Your task to perform on an android device: Search for vegetarian restaurants on Maps Image 0: 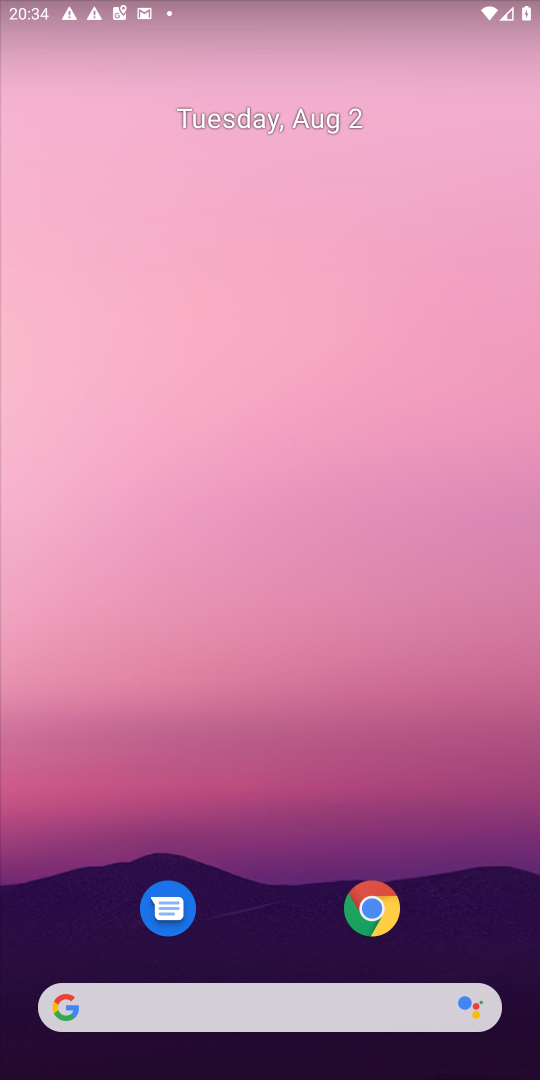
Step 0: drag from (334, 960) to (463, 15)
Your task to perform on an android device: Search for vegetarian restaurants on Maps Image 1: 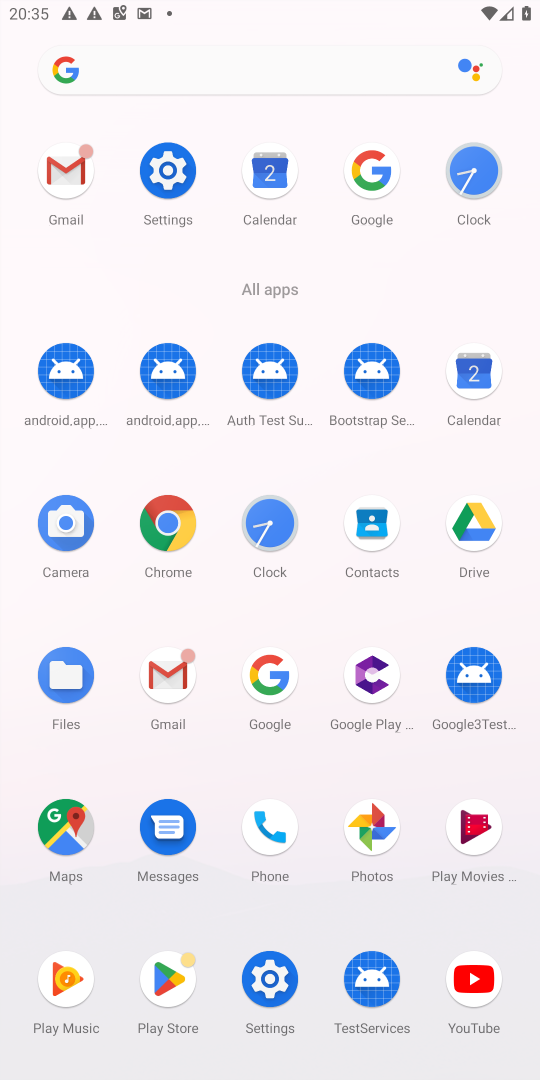
Step 1: click (65, 830)
Your task to perform on an android device: Search for vegetarian restaurants on Maps Image 2: 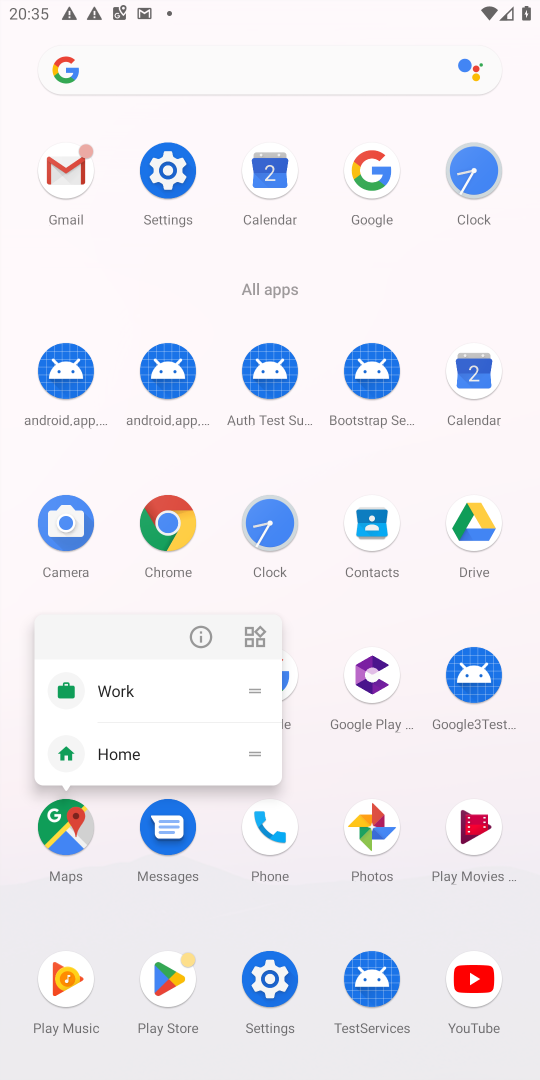
Step 2: click (65, 830)
Your task to perform on an android device: Search for vegetarian restaurants on Maps Image 3: 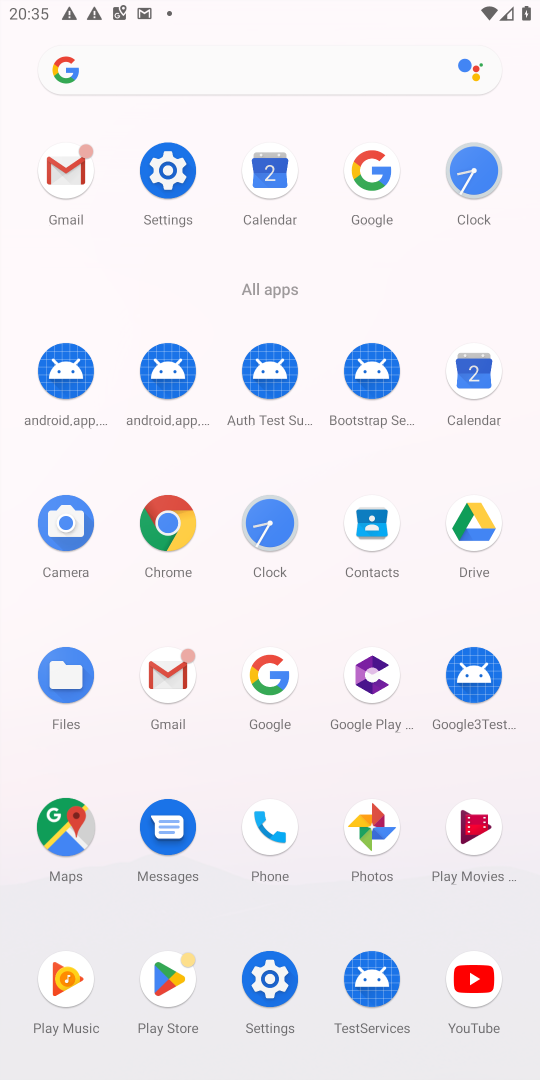
Step 3: click (65, 830)
Your task to perform on an android device: Search for vegetarian restaurants on Maps Image 4: 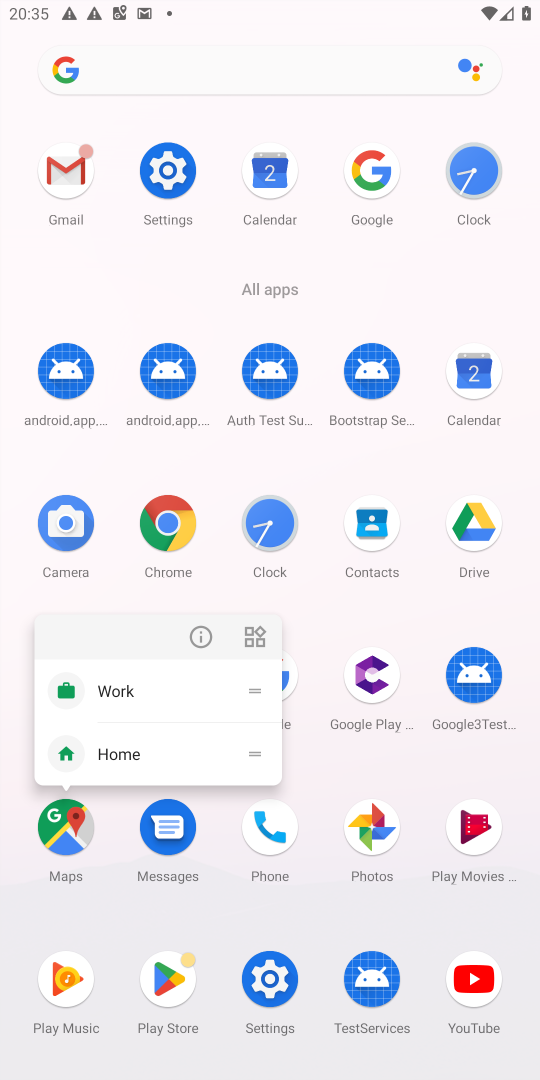
Step 4: click (65, 830)
Your task to perform on an android device: Search for vegetarian restaurants on Maps Image 5: 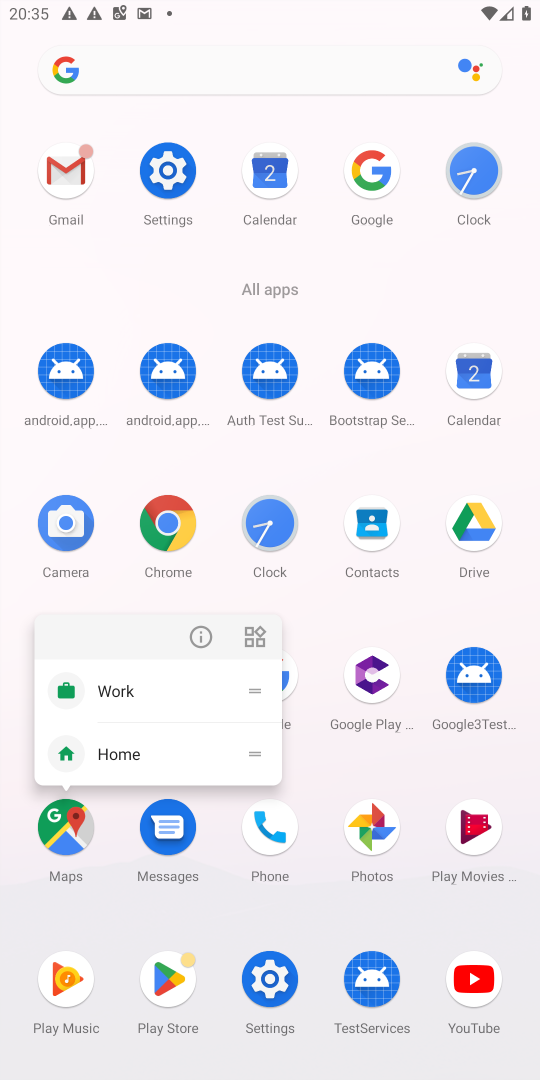
Step 5: click (60, 849)
Your task to perform on an android device: Search for vegetarian restaurants on Maps Image 6: 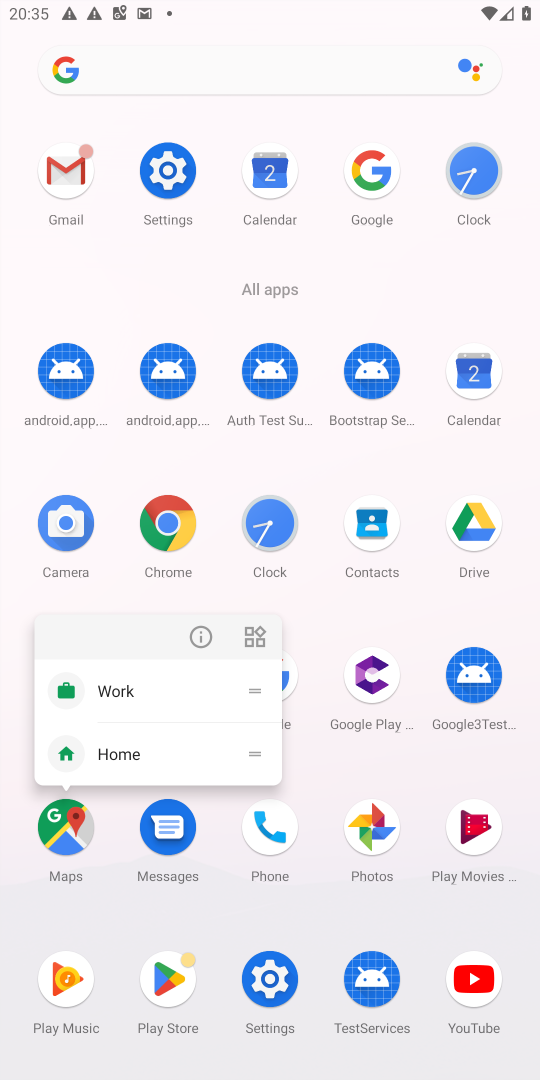
Step 6: click (60, 849)
Your task to perform on an android device: Search for vegetarian restaurants on Maps Image 7: 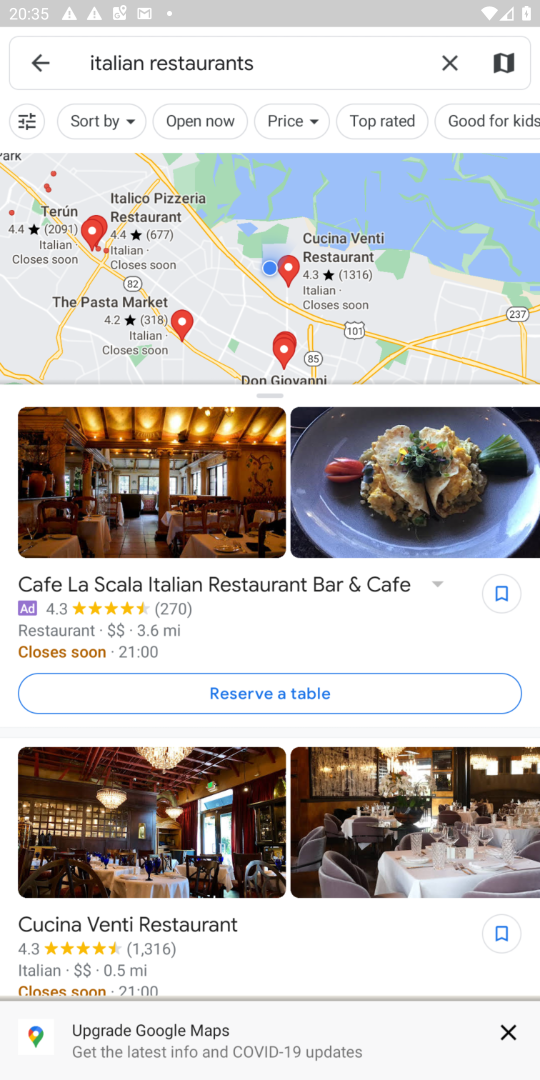
Step 7: click (60, 849)
Your task to perform on an android device: Search for vegetarian restaurants on Maps Image 8: 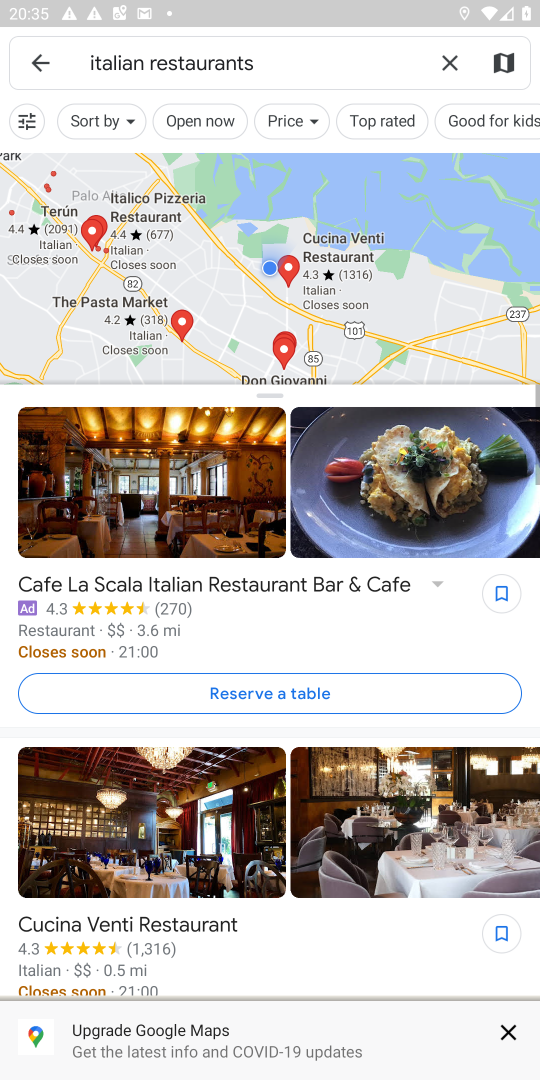
Step 8: click (451, 53)
Your task to perform on an android device: Search for vegetarian restaurants on Maps Image 9: 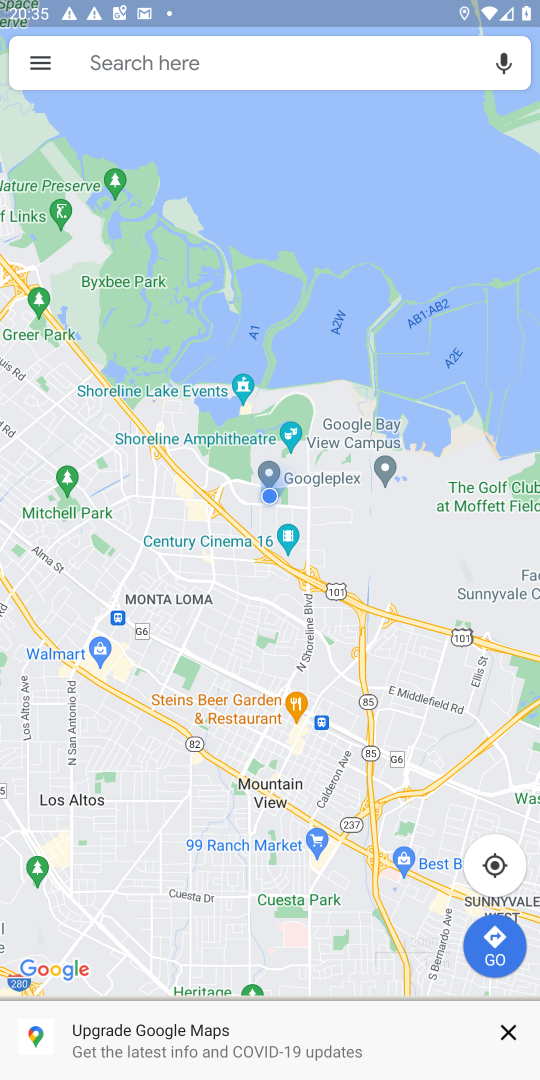
Step 9: click (162, 67)
Your task to perform on an android device: Search for vegetarian restaurants on Maps Image 10: 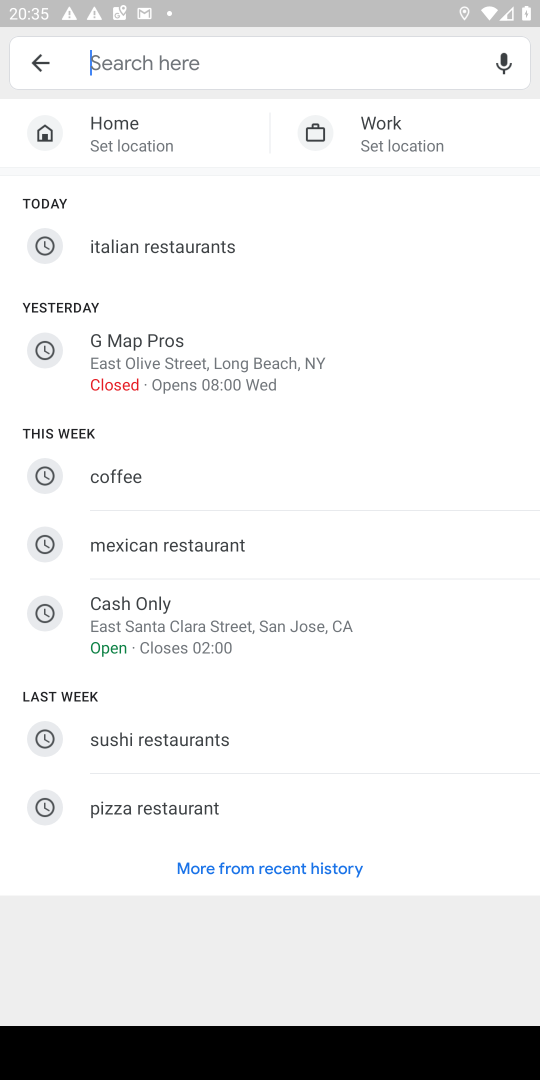
Step 10: type "vegetarian restaurants"
Your task to perform on an android device: Search for vegetarian restaurants on Maps Image 11: 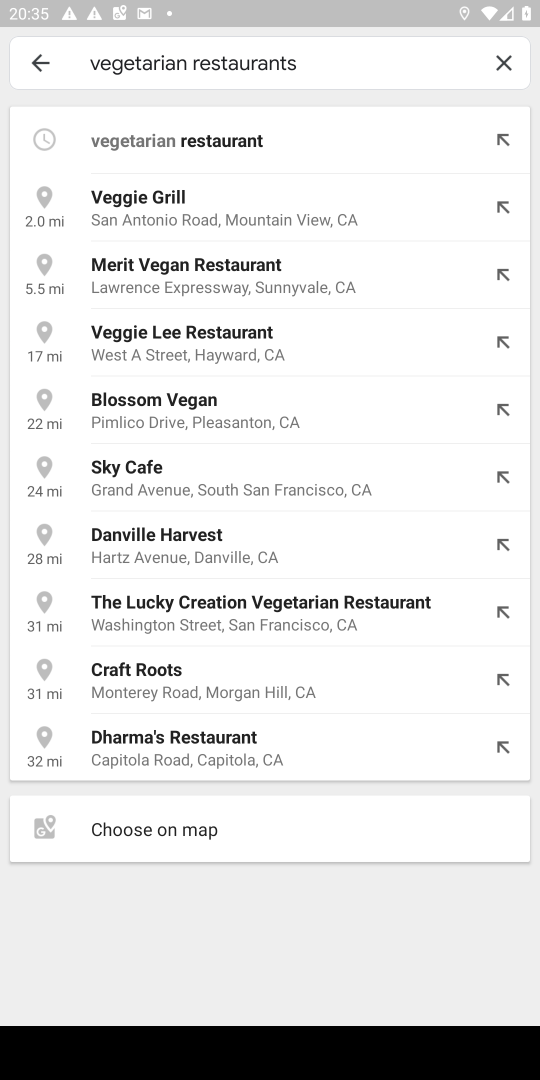
Step 11: click (225, 139)
Your task to perform on an android device: Search for vegetarian restaurants on Maps Image 12: 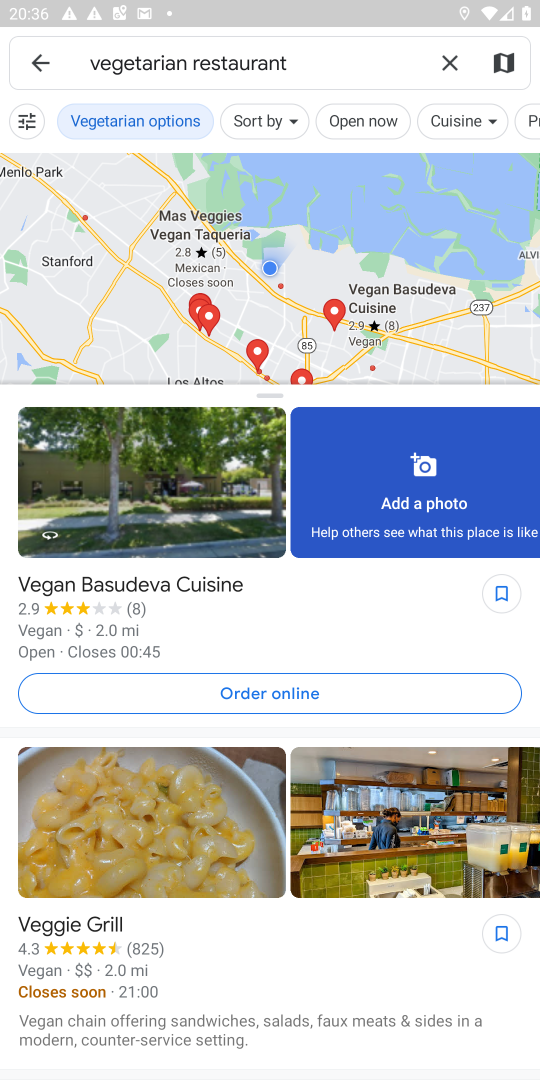
Step 12: task complete